Your task to perform on an android device: Show me popular games on the Play Store Image 0: 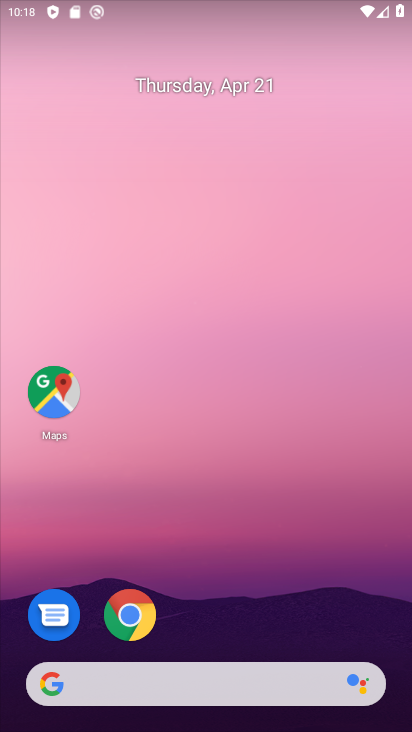
Step 0: drag from (216, 431) to (268, 131)
Your task to perform on an android device: Show me popular games on the Play Store Image 1: 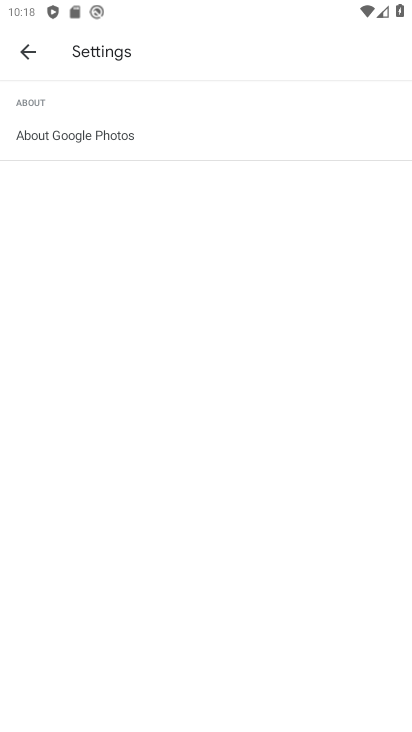
Step 1: press back button
Your task to perform on an android device: Show me popular games on the Play Store Image 2: 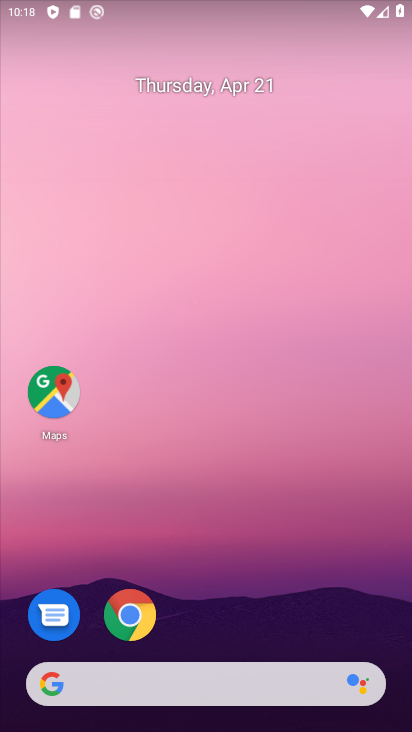
Step 2: drag from (182, 662) to (300, 29)
Your task to perform on an android device: Show me popular games on the Play Store Image 3: 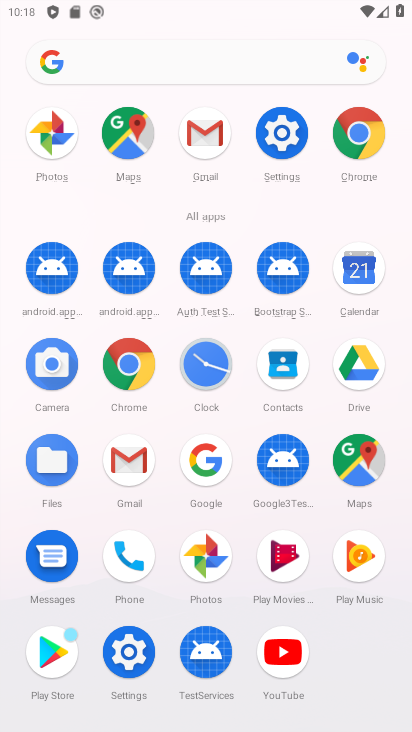
Step 3: click (59, 641)
Your task to perform on an android device: Show me popular games on the Play Store Image 4: 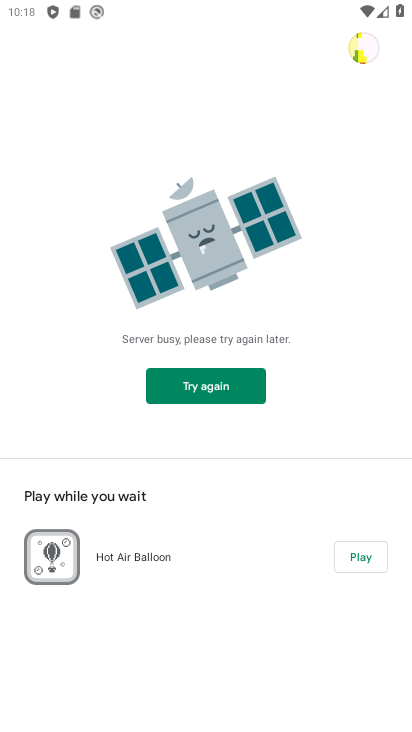
Step 4: click (215, 389)
Your task to perform on an android device: Show me popular games on the Play Store Image 5: 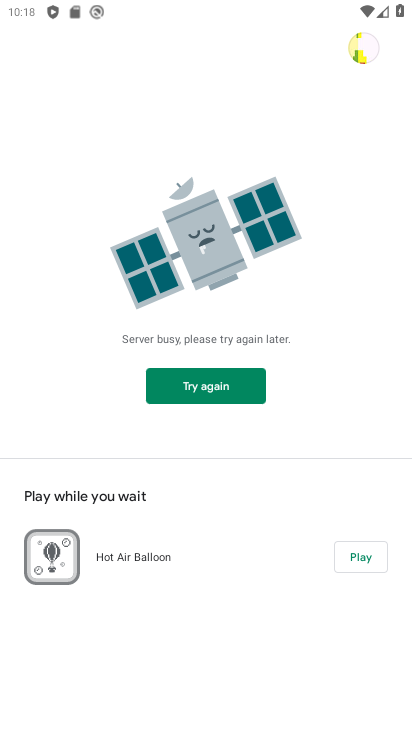
Step 5: task complete